Your task to perform on an android device: Open Android settings Image 0: 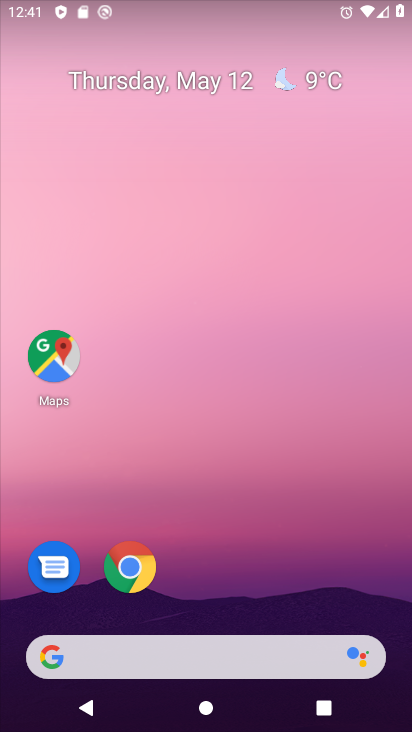
Step 0: drag from (203, 635) to (313, 100)
Your task to perform on an android device: Open Android settings Image 1: 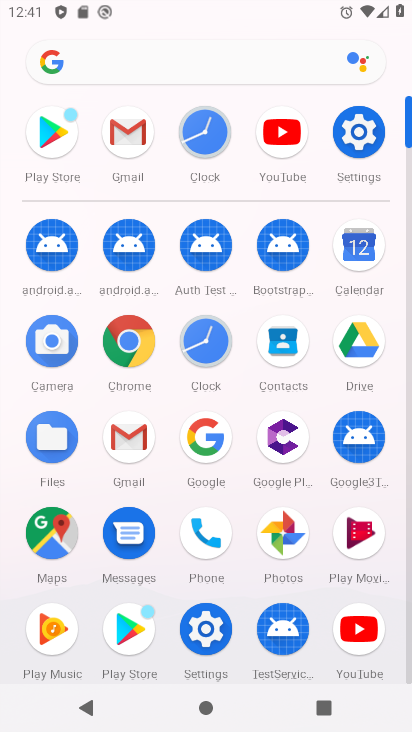
Step 1: click (200, 631)
Your task to perform on an android device: Open Android settings Image 2: 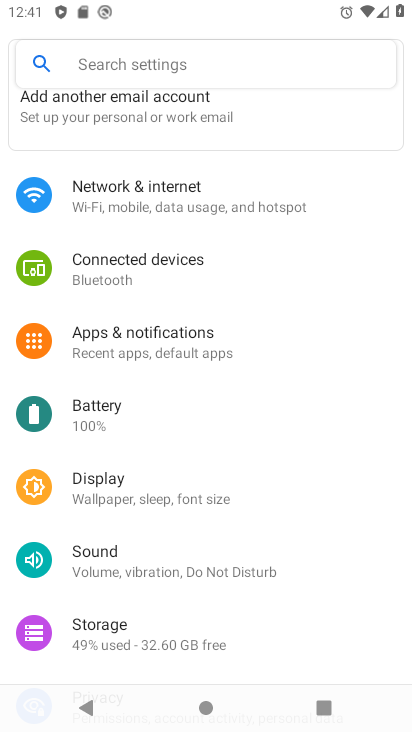
Step 2: task complete